Your task to perform on an android device: Show me popular games on the Play Store Image 0: 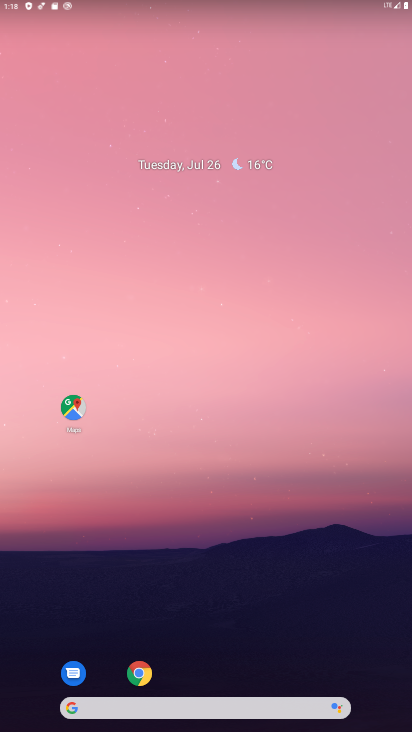
Step 0: drag from (224, 725) to (201, 139)
Your task to perform on an android device: Show me popular games on the Play Store Image 1: 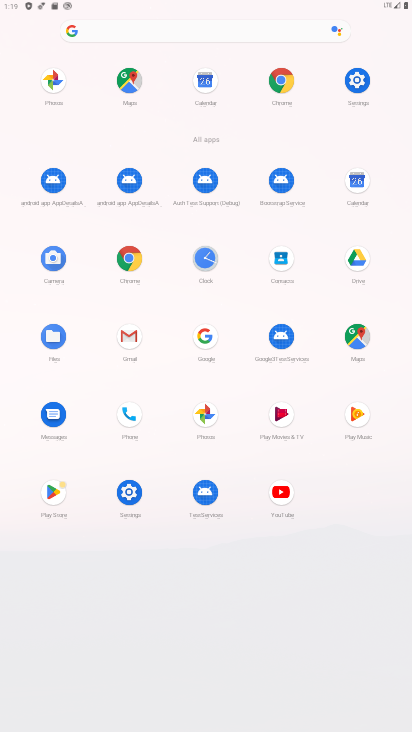
Step 1: click (53, 490)
Your task to perform on an android device: Show me popular games on the Play Store Image 2: 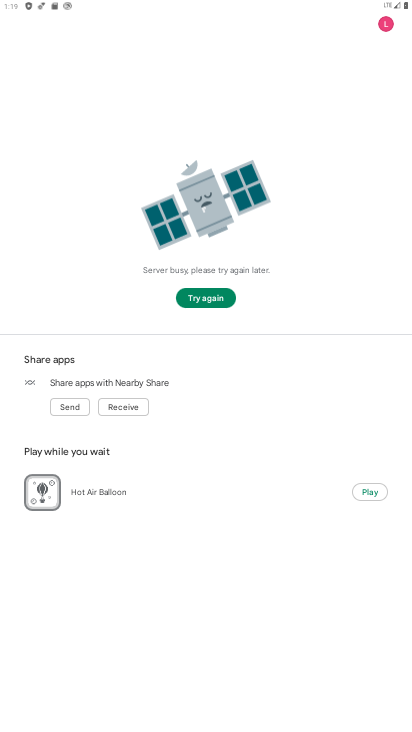
Step 2: task complete